Your task to perform on an android device: toggle priority inbox in the gmail app Image 0: 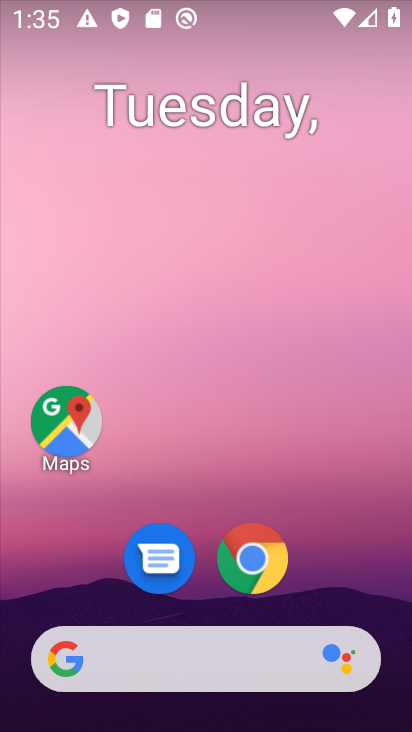
Step 0: drag from (208, 489) to (195, 97)
Your task to perform on an android device: toggle priority inbox in the gmail app Image 1: 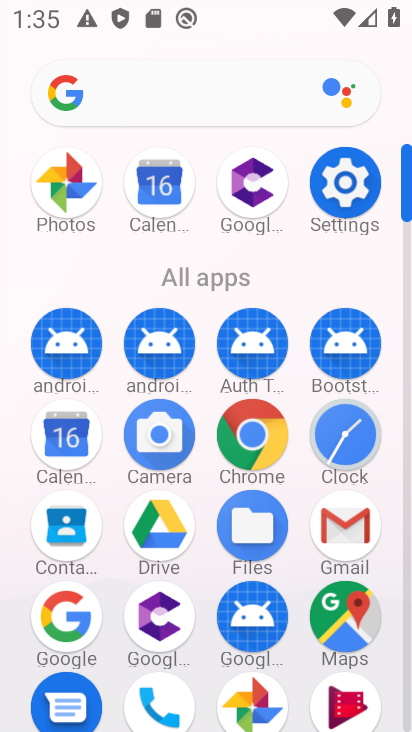
Step 1: click (354, 519)
Your task to perform on an android device: toggle priority inbox in the gmail app Image 2: 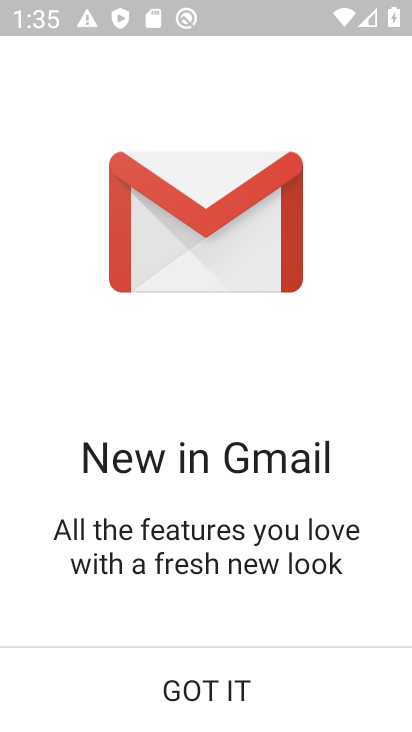
Step 2: click (282, 686)
Your task to perform on an android device: toggle priority inbox in the gmail app Image 3: 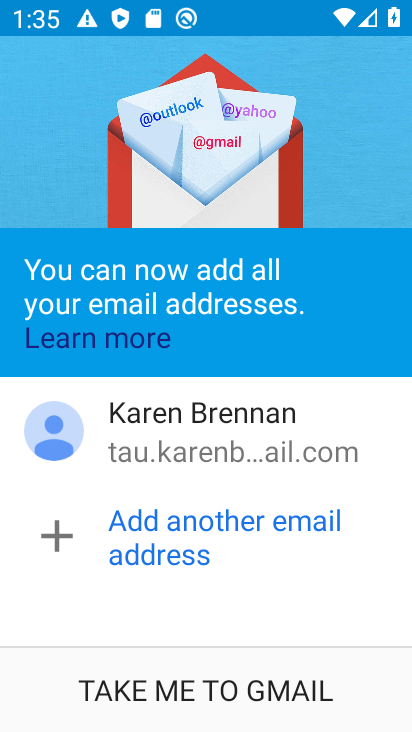
Step 3: click (282, 686)
Your task to perform on an android device: toggle priority inbox in the gmail app Image 4: 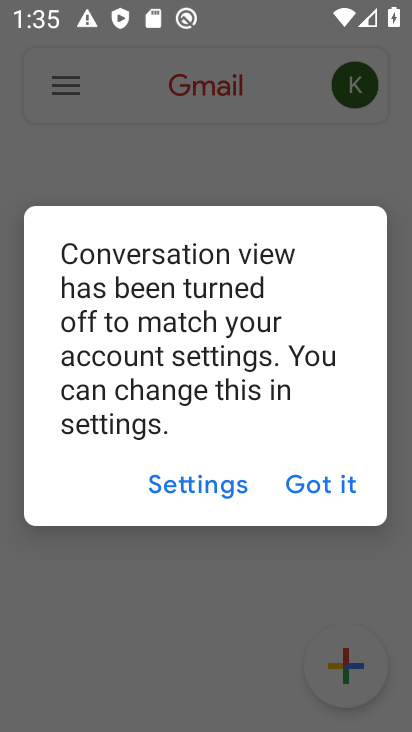
Step 4: click (327, 498)
Your task to perform on an android device: toggle priority inbox in the gmail app Image 5: 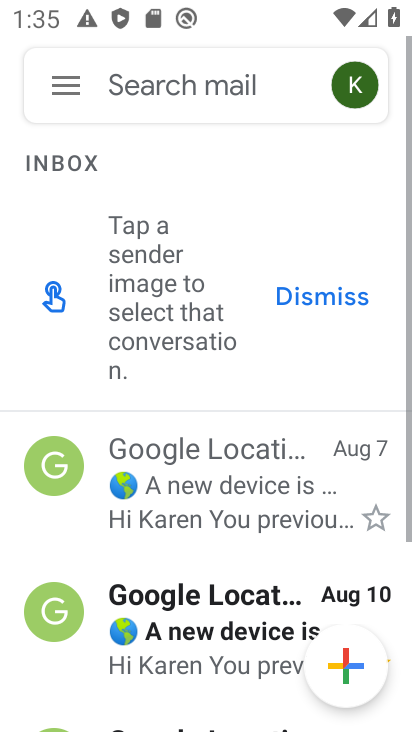
Step 5: click (70, 80)
Your task to perform on an android device: toggle priority inbox in the gmail app Image 6: 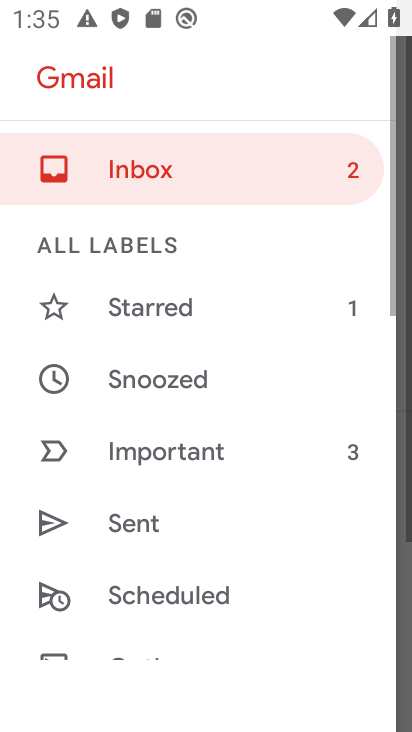
Step 6: drag from (153, 628) to (208, 175)
Your task to perform on an android device: toggle priority inbox in the gmail app Image 7: 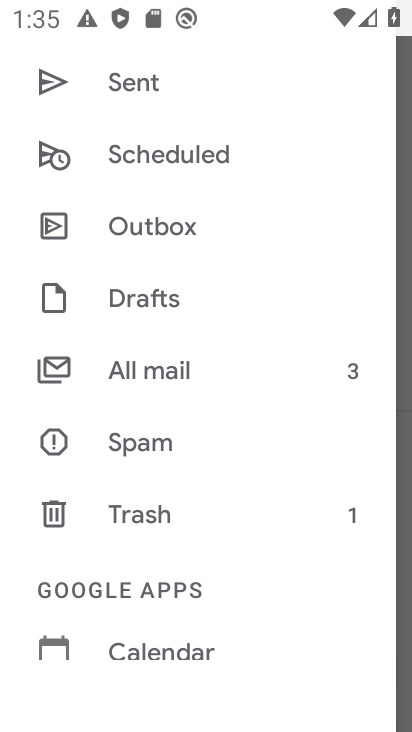
Step 7: drag from (227, 550) to (214, 167)
Your task to perform on an android device: toggle priority inbox in the gmail app Image 8: 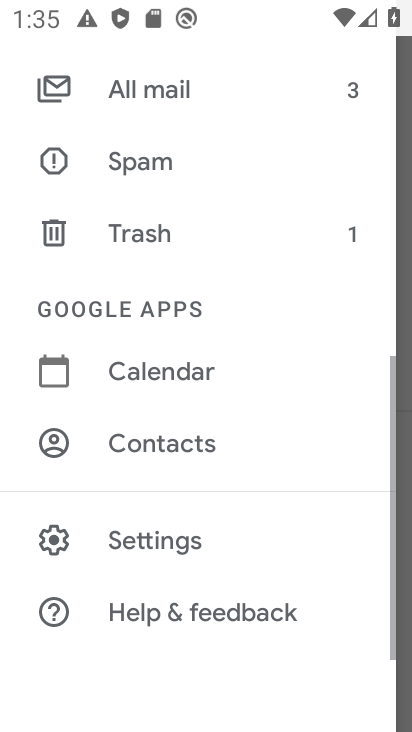
Step 8: click (188, 523)
Your task to perform on an android device: toggle priority inbox in the gmail app Image 9: 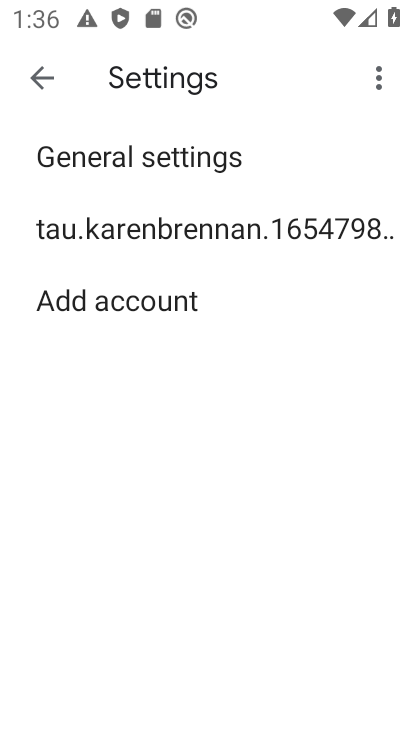
Step 9: click (171, 215)
Your task to perform on an android device: toggle priority inbox in the gmail app Image 10: 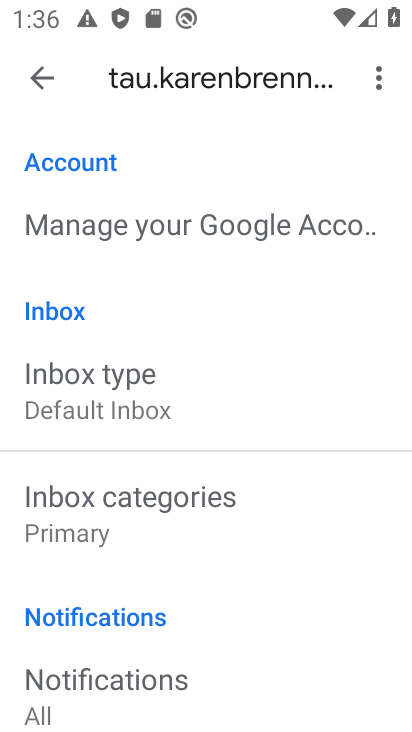
Step 10: click (161, 372)
Your task to perform on an android device: toggle priority inbox in the gmail app Image 11: 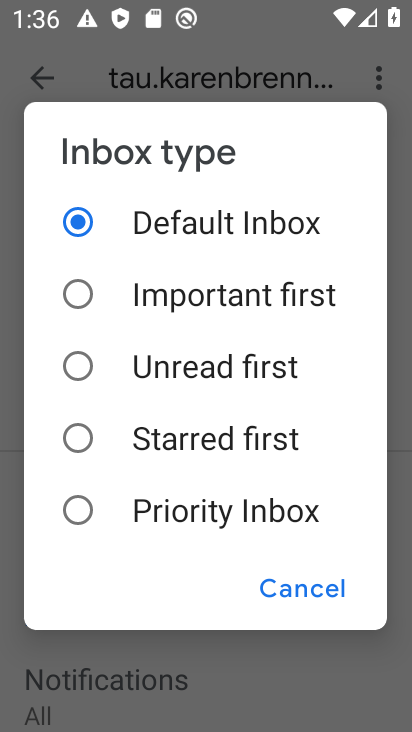
Step 11: click (221, 521)
Your task to perform on an android device: toggle priority inbox in the gmail app Image 12: 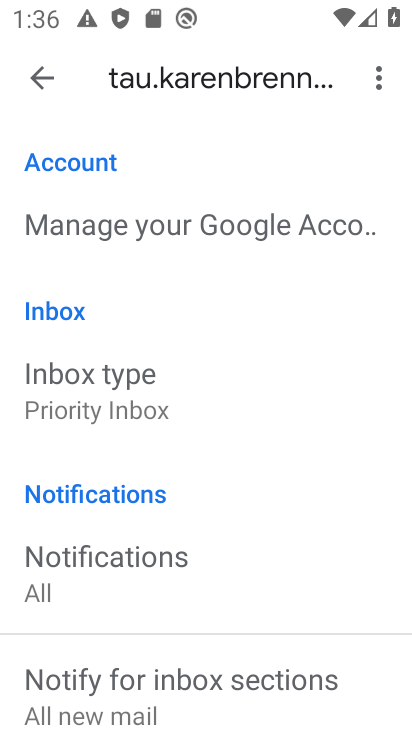
Step 12: task complete